Your task to perform on an android device: Open settings on Google Maps Image 0: 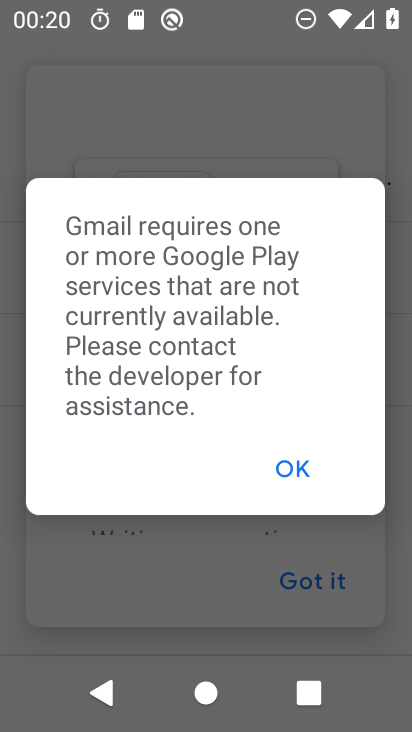
Step 0: press home button
Your task to perform on an android device: Open settings on Google Maps Image 1: 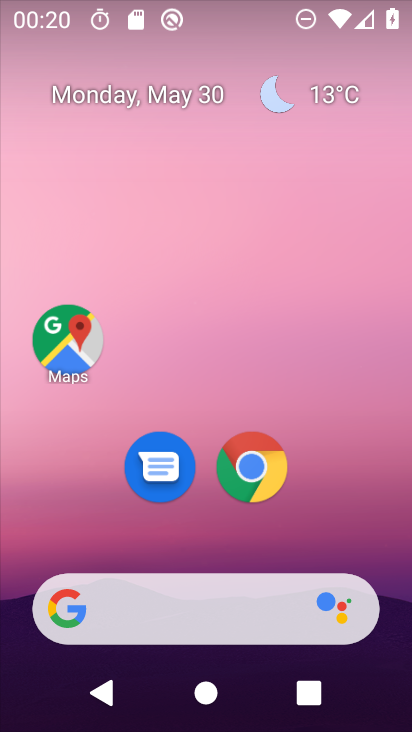
Step 1: click (67, 332)
Your task to perform on an android device: Open settings on Google Maps Image 2: 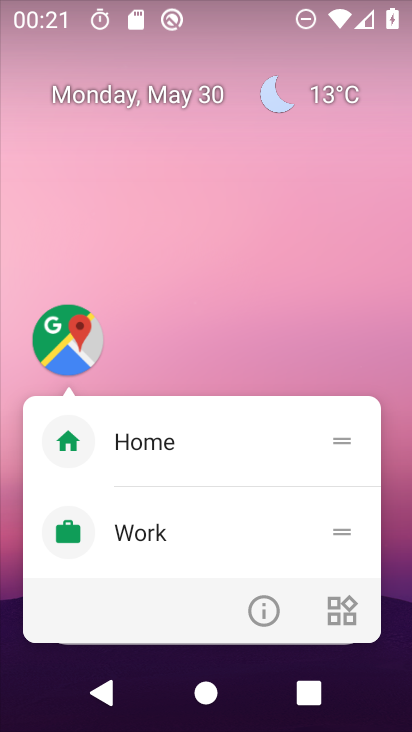
Step 2: click (63, 339)
Your task to perform on an android device: Open settings on Google Maps Image 3: 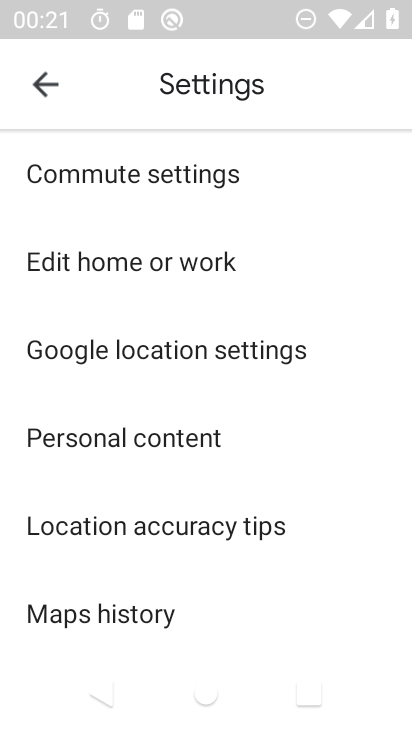
Step 3: task complete